Your task to perform on an android device: show emergency info Image 0: 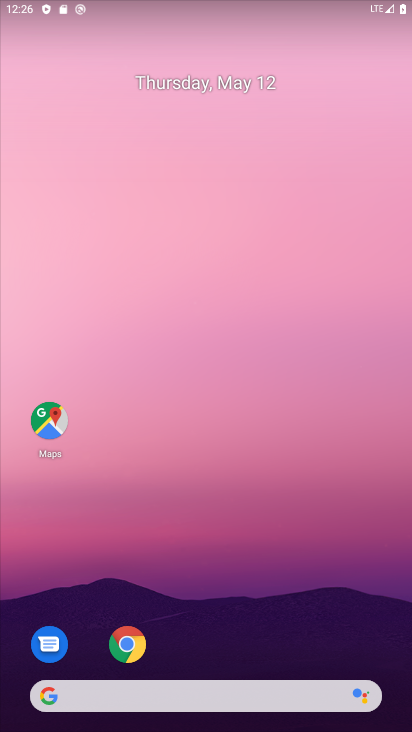
Step 0: drag from (255, 565) to (177, 85)
Your task to perform on an android device: show emergency info Image 1: 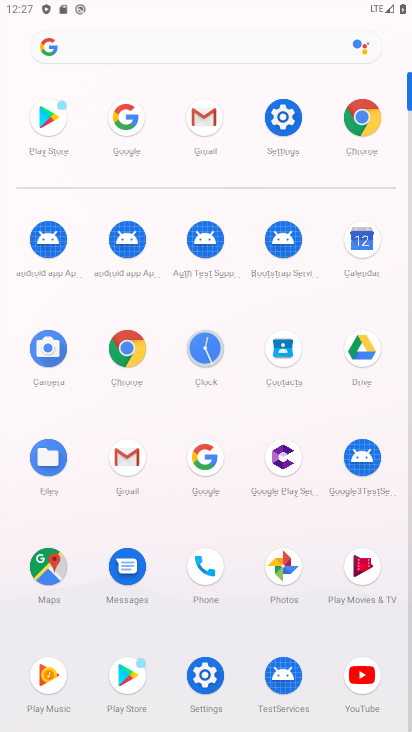
Step 1: click (286, 117)
Your task to perform on an android device: show emergency info Image 2: 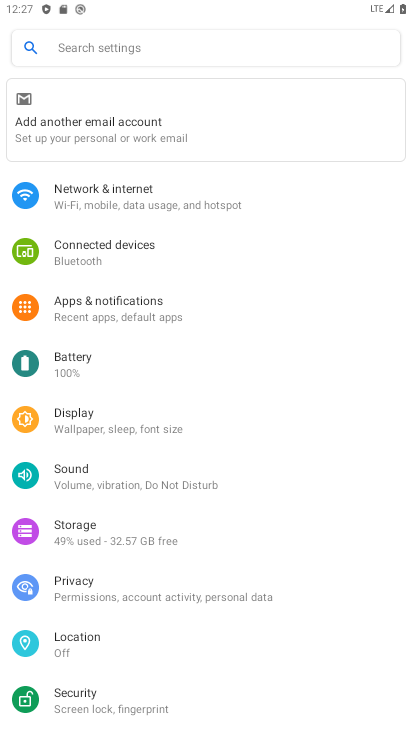
Step 2: drag from (171, 603) to (180, 200)
Your task to perform on an android device: show emergency info Image 3: 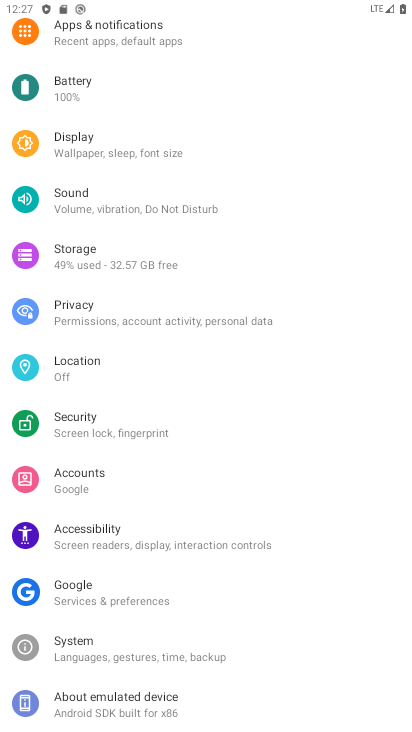
Step 3: drag from (175, 670) to (185, 312)
Your task to perform on an android device: show emergency info Image 4: 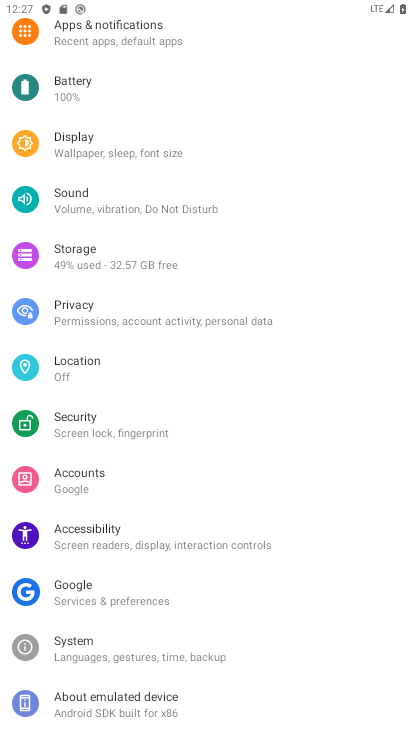
Step 4: click (156, 705)
Your task to perform on an android device: show emergency info Image 5: 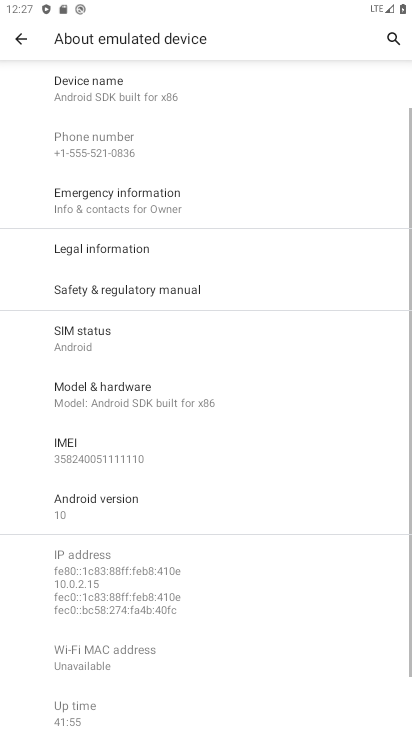
Step 5: click (133, 197)
Your task to perform on an android device: show emergency info Image 6: 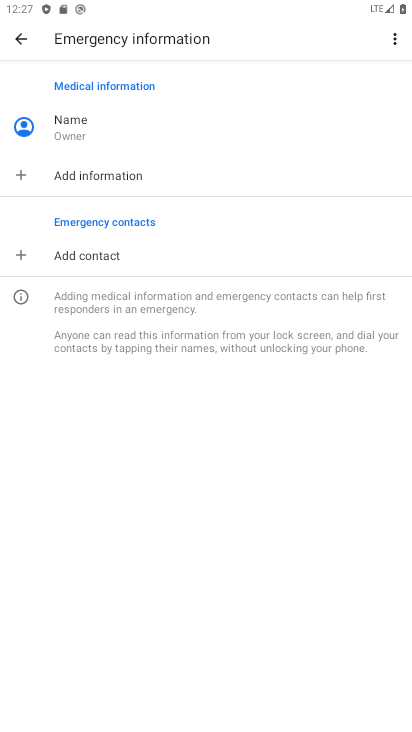
Step 6: task complete